Your task to perform on an android device: make emails show in primary in the gmail app Image 0: 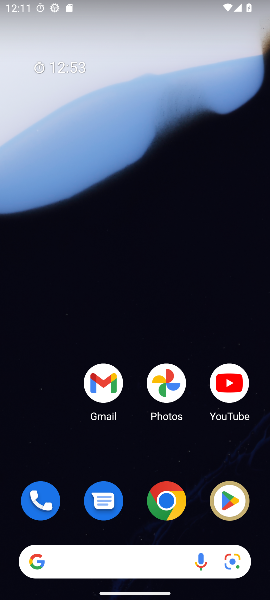
Step 0: click (111, 389)
Your task to perform on an android device: make emails show in primary in the gmail app Image 1: 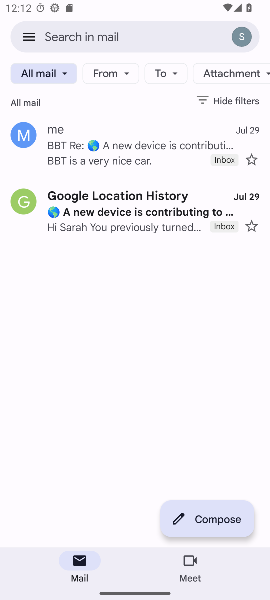
Step 1: click (23, 32)
Your task to perform on an android device: make emails show in primary in the gmail app Image 2: 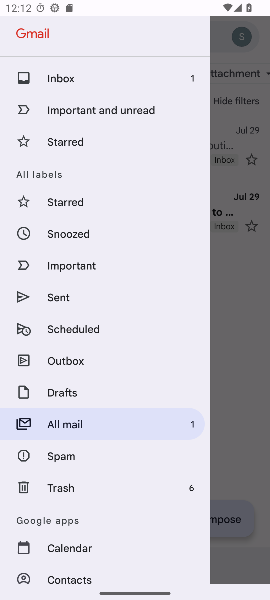
Step 2: drag from (97, 553) to (76, 411)
Your task to perform on an android device: make emails show in primary in the gmail app Image 3: 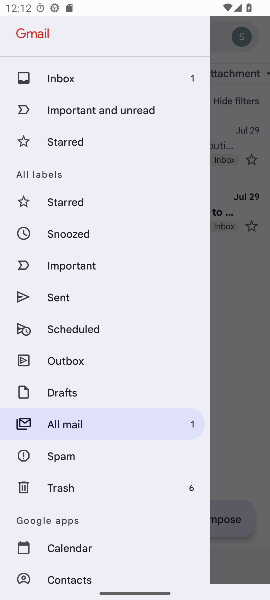
Step 3: drag from (77, 555) to (95, 320)
Your task to perform on an android device: make emails show in primary in the gmail app Image 4: 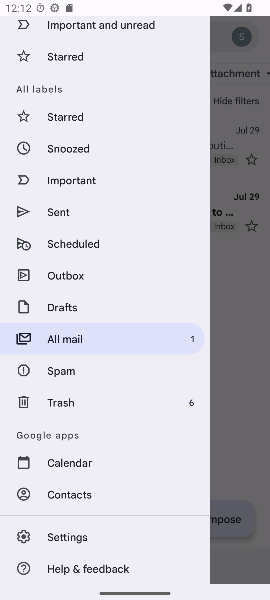
Step 4: click (75, 533)
Your task to perform on an android device: make emails show in primary in the gmail app Image 5: 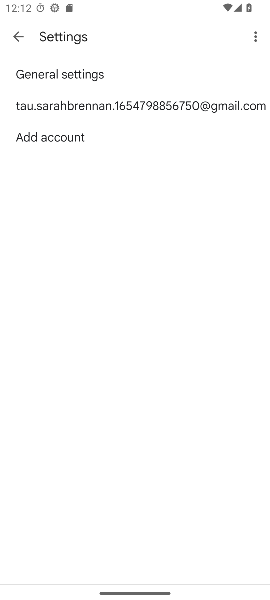
Step 5: click (68, 105)
Your task to perform on an android device: make emails show in primary in the gmail app Image 6: 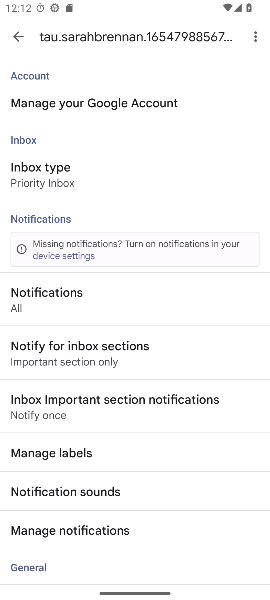
Step 6: click (61, 181)
Your task to perform on an android device: make emails show in primary in the gmail app Image 7: 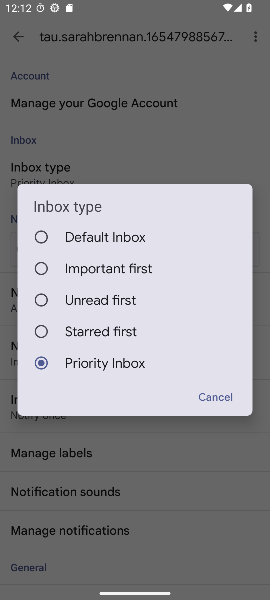
Step 7: click (43, 237)
Your task to perform on an android device: make emails show in primary in the gmail app Image 8: 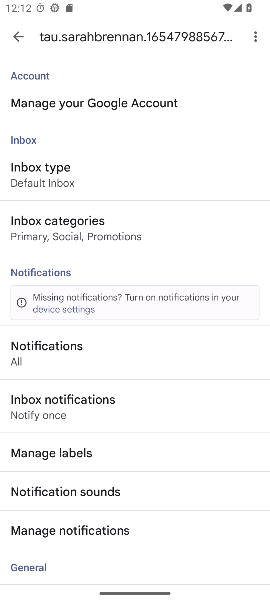
Step 8: click (92, 236)
Your task to perform on an android device: make emails show in primary in the gmail app Image 9: 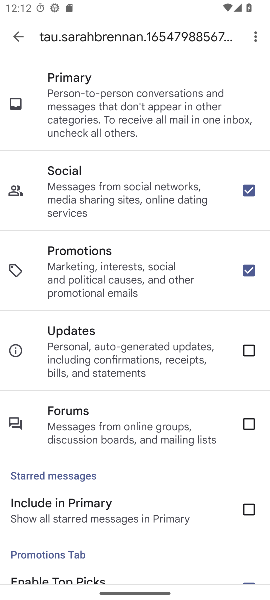
Step 9: click (250, 273)
Your task to perform on an android device: make emails show in primary in the gmail app Image 10: 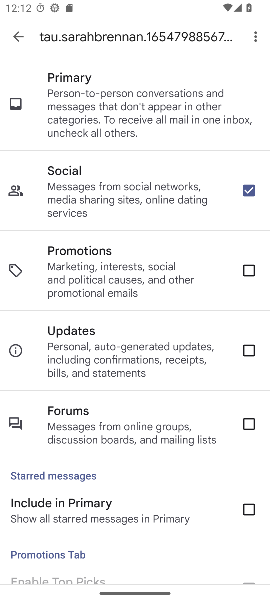
Step 10: click (248, 189)
Your task to perform on an android device: make emails show in primary in the gmail app Image 11: 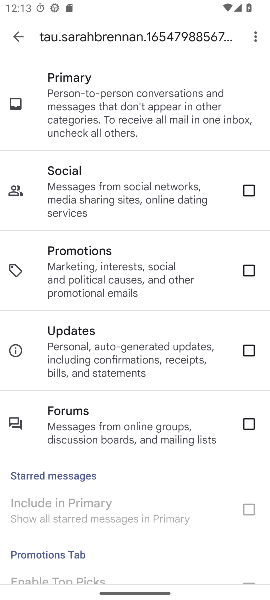
Step 11: task complete